Your task to perform on an android device: make emails show in primary in the gmail app Image 0: 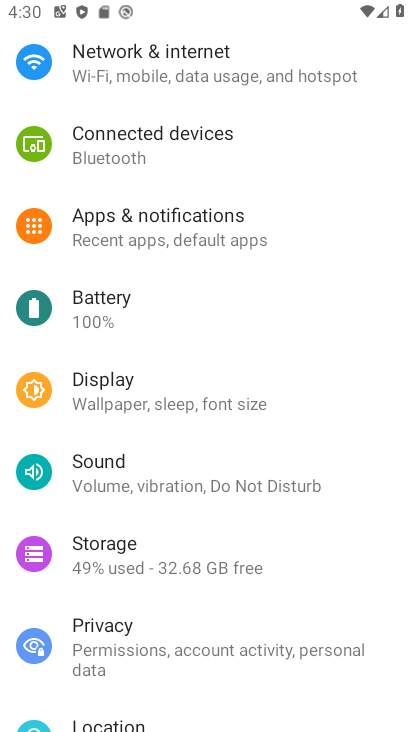
Step 0: press home button
Your task to perform on an android device: make emails show in primary in the gmail app Image 1: 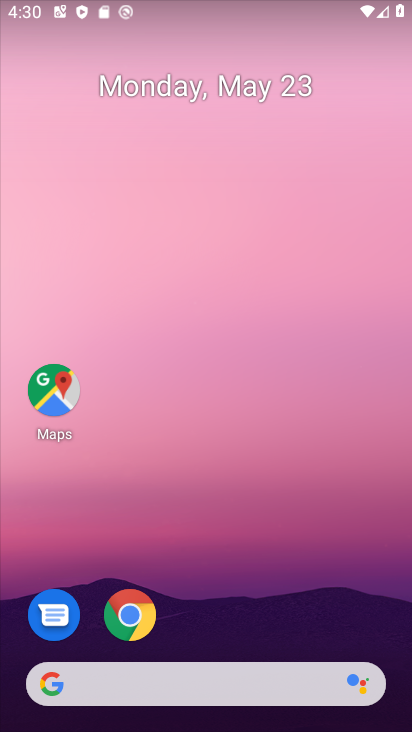
Step 1: drag from (224, 603) to (175, 81)
Your task to perform on an android device: make emails show in primary in the gmail app Image 2: 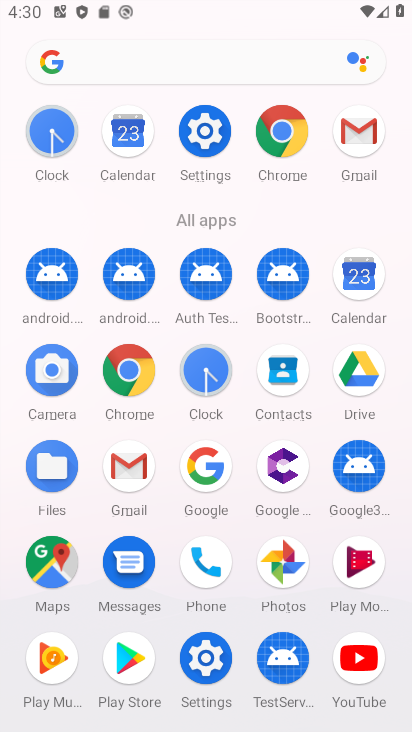
Step 2: click (121, 464)
Your task to perform on an android device: make emails show in primary in the gmail app Image 3: 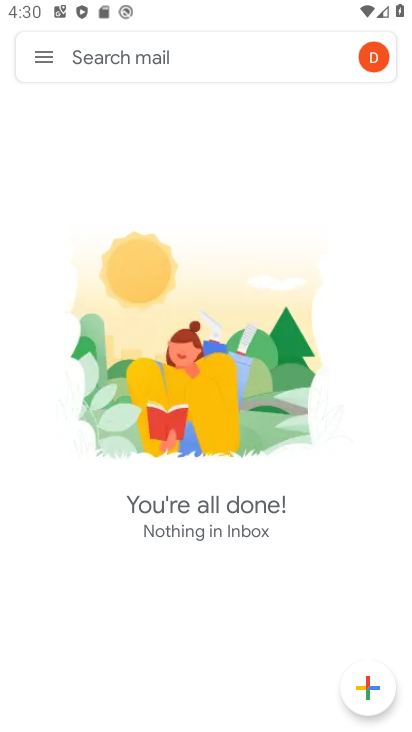
Step 3: click (52, 59)
Your task to perform on an android device: make emails show in primary in the gmail app Image 4: 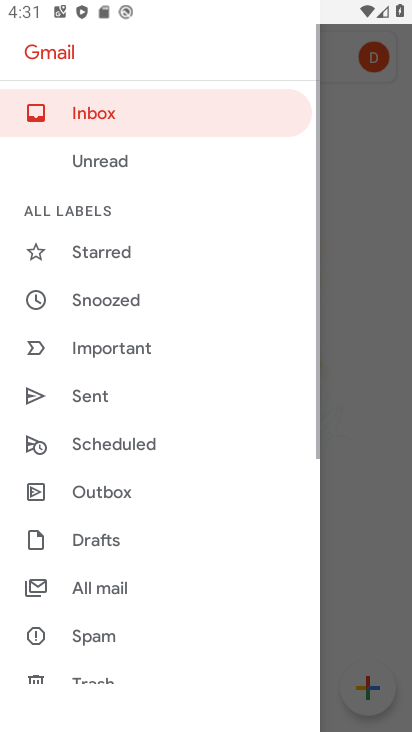
Step 4: click (148, 105)
Your task to perform on an android device: make emails show in primary in the gmail app Image 5: 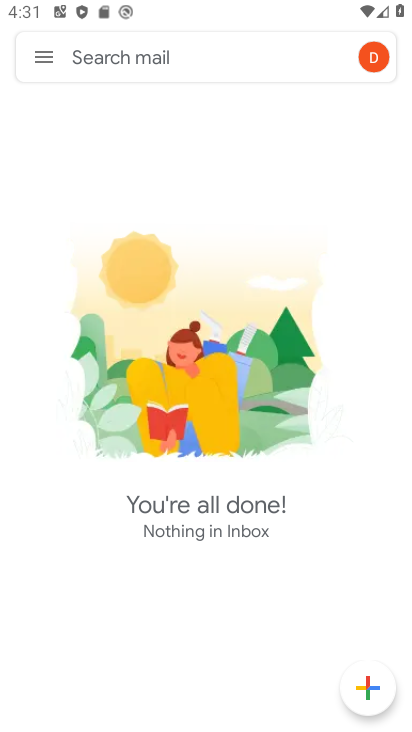
Step 5: task complete